Your task to perform on an android device: What is the recent news? Image 0: 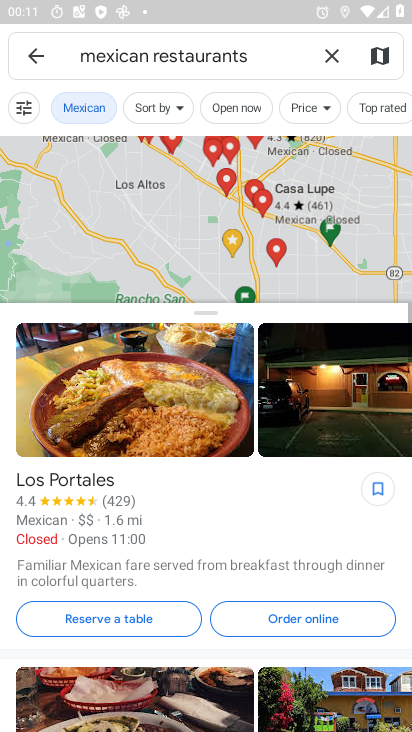
Step 0: press home button
Your task to perform on an android device: What is the recent news? Image 1: 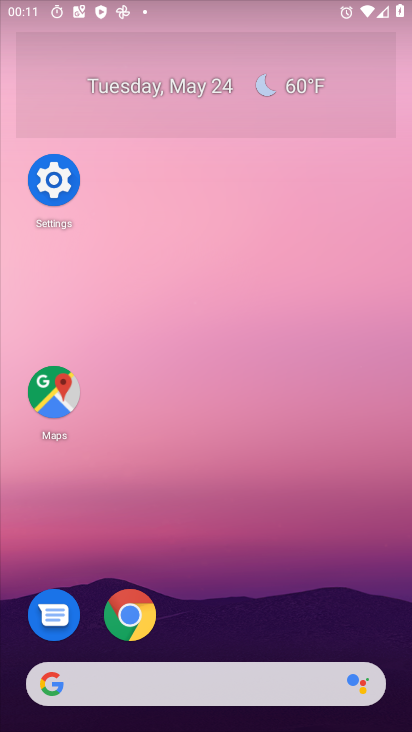
Step 1: drag from (200, 597) to (241, 104)
Your task to perform on an android device: What is the recent news? Image 2: 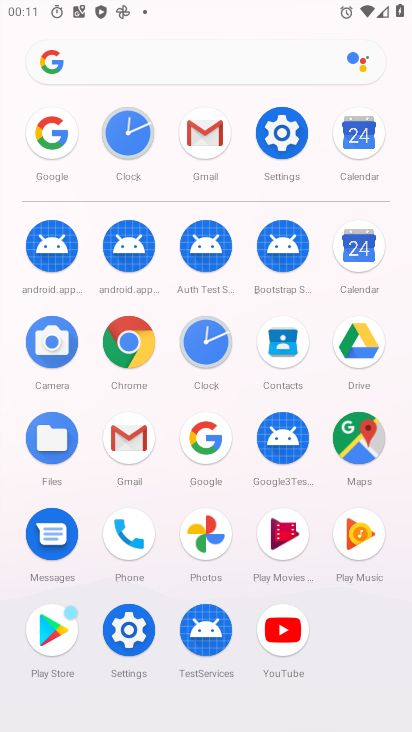
Step 2: click (201, 443)
Your task to perform on an android device: What is the recent news? Image 3: 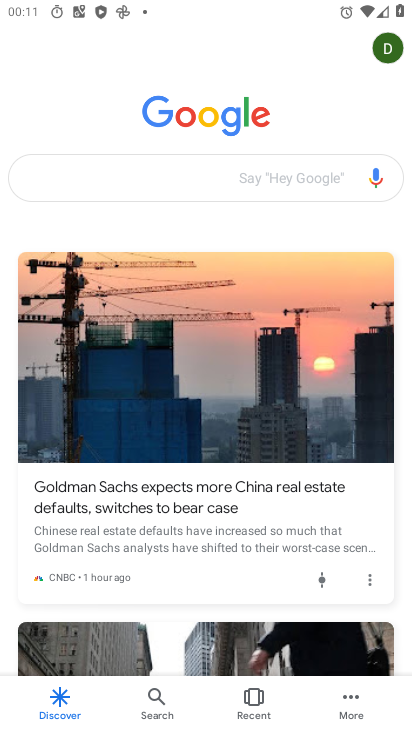
Step 3: click (173, 186)
Your task to perform on an android device: What is the recent news? Image 4: 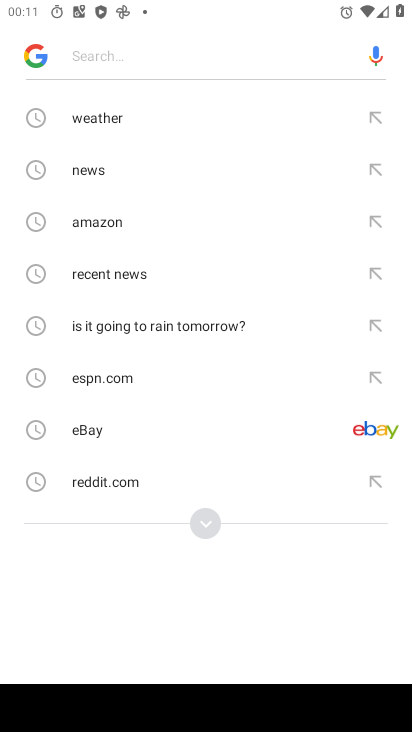
Step 4: click (133, 275)
Your task to perform on an android device: What is the recent news? Image 5: 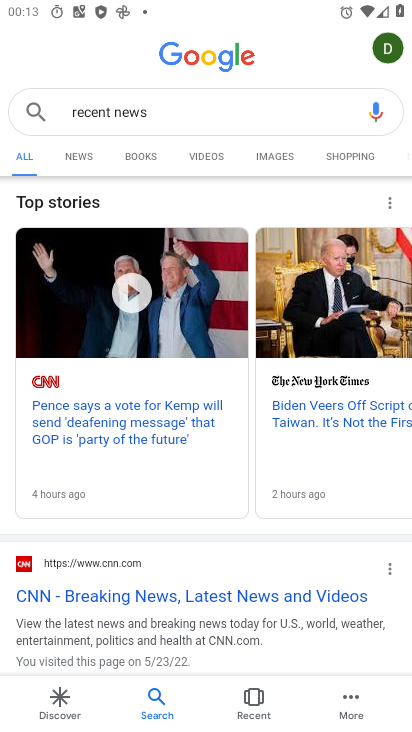
Step 5: task complete